Your task to perform on an android device: open app "DoorDash - Dasher" (install if not already installed) Image 0: 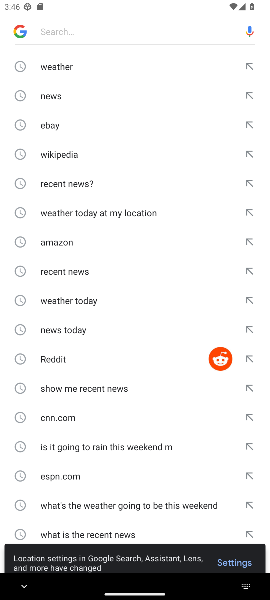
Step 0: press home button
Your task to perform on an android device: open app "DoorDash - Dasher" (install if not already installed) Image 1: 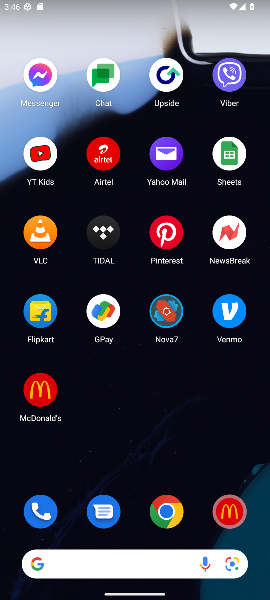
Step 1: drag from (148, 261) to (166, 131)
Your task to perform on an android device: open app "DoorDash - Dasher" (install if not already installed) Image 2: 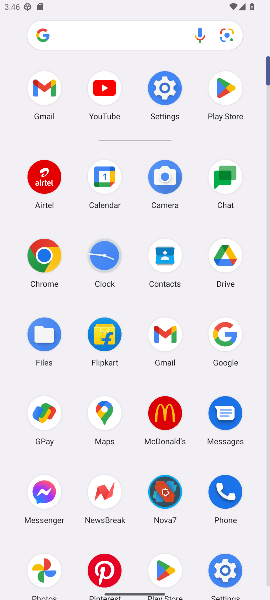
Step 2: click (236, 93)
Your task to perform on an android device: open app "DoorDash - Dasher" (install if not already installed) Image 3: 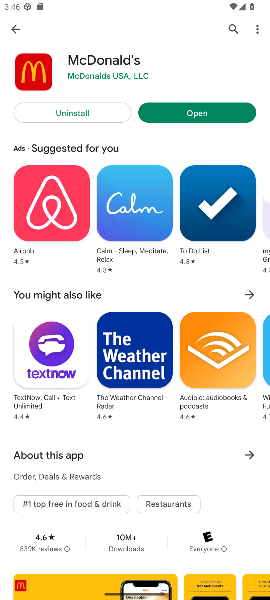
Step 3: click (18, 30)
Your task to perform on an android device: open app "DoorDash - Dasher" (install if not already installed) Image 4: 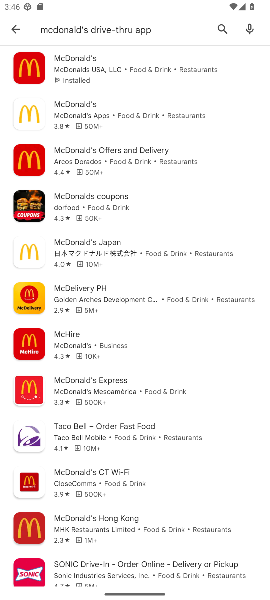
Step 4: click (15, 30)
Your task to perform on an android device: open app "DoorDash - Dasher" (install if not already installed) Image 5: 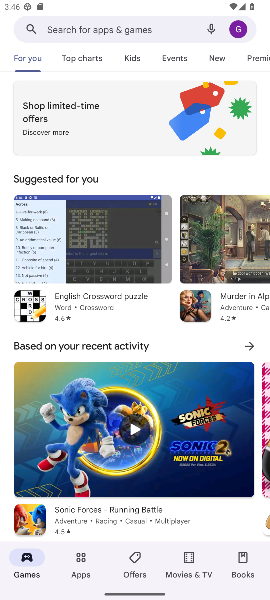
Step 5: click (56, 30)
Your task to perform on an android device: open app "DoorDash - Dasher" (install if not already installed) Image 6: 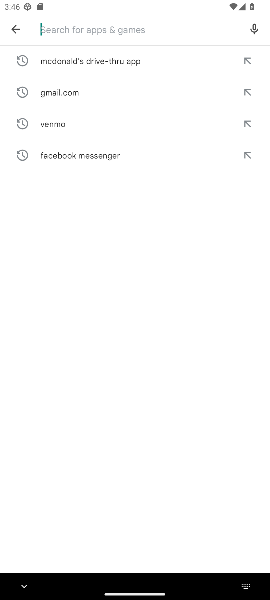
Step 6: type "doordash-dasher"
Your task to perform on an android device: open app "DoorDash - Dasher" (install if not already installed) Image 7: 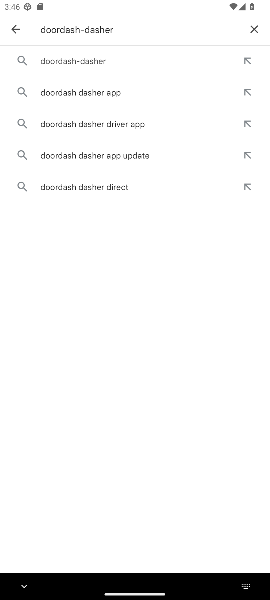
Step 7: click (73, 63)
Your task to perform on an android device: open app "DoorDash - Dasher" (install if not already installed) Image 8: 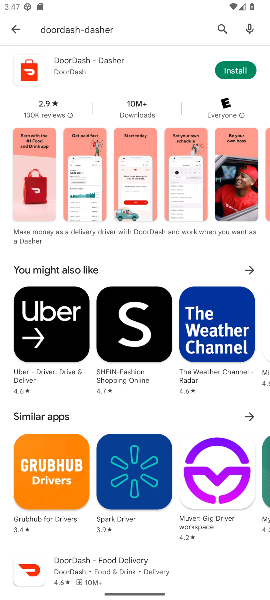
Step 8: click (227, 63)
Your task to perform on an android device: open app "DoorDash - Dasher" (install if not already installed) Image 9: 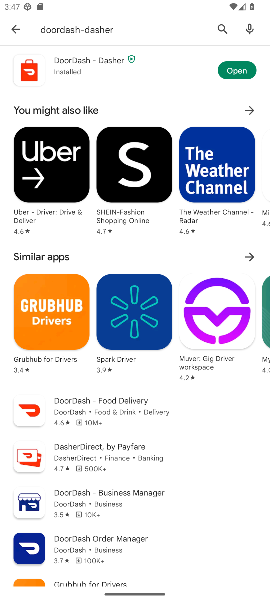
Step 9: click (232, 67)
Your task to perform on an android device: open app "DoorDash - Dasher" (install if not already installed) Image 10: 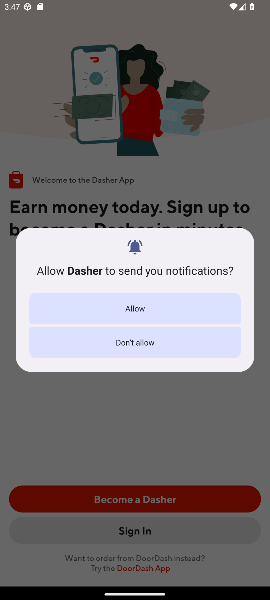
Step 10: click (134, 315)
Your task to perform on an android device: open app "DoorDash - Dasher" (install if not already installed) Image 11: 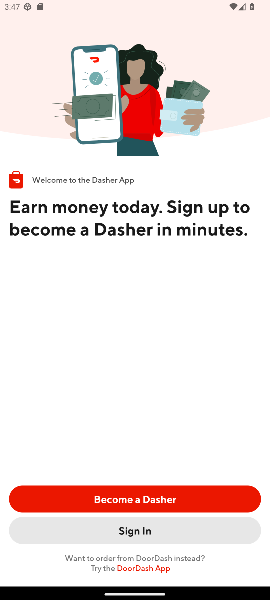
Step 11: task complete